Your task to perform on an android device: turn on showing notifications on the lock screen Image 0: 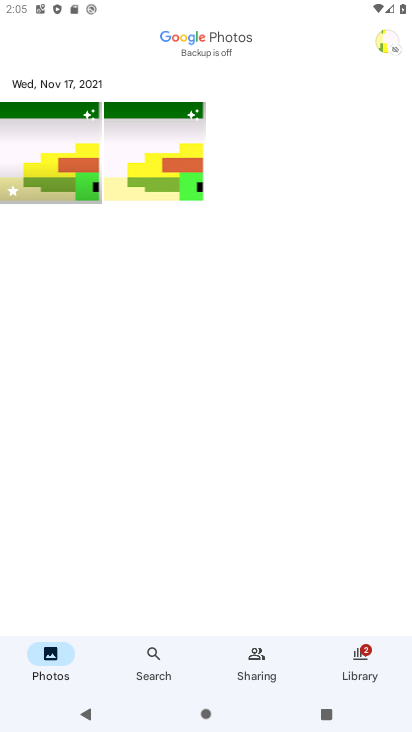
Step 0: press home button
Your task to perform on an android device: turn on showing notifications on the lock screen Image 1: 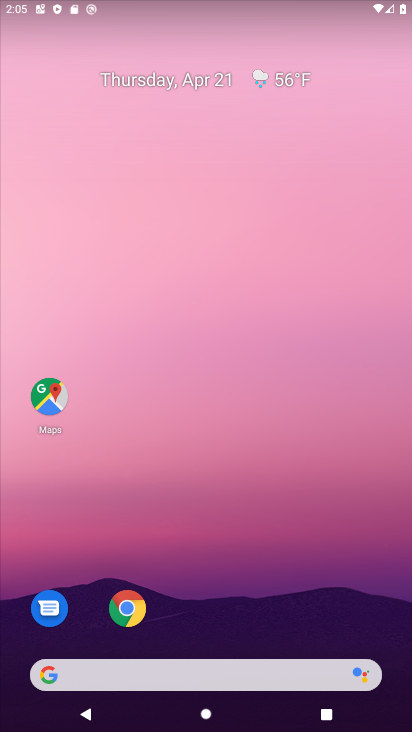
Step 1: drag from (270, 568) to (257, 77)
Your task to perform on an android device: turn on showing notifications on the lock screen Image 2: 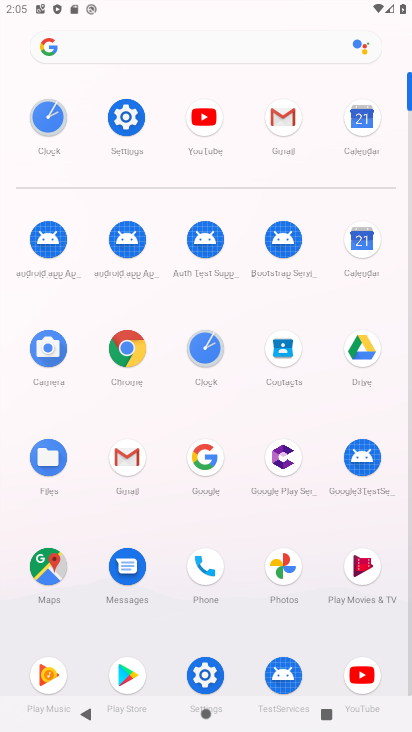
Step 2: click (119, 119)
Your task to perform on an android device: turn on showing notifications on the lock screen Image 3: 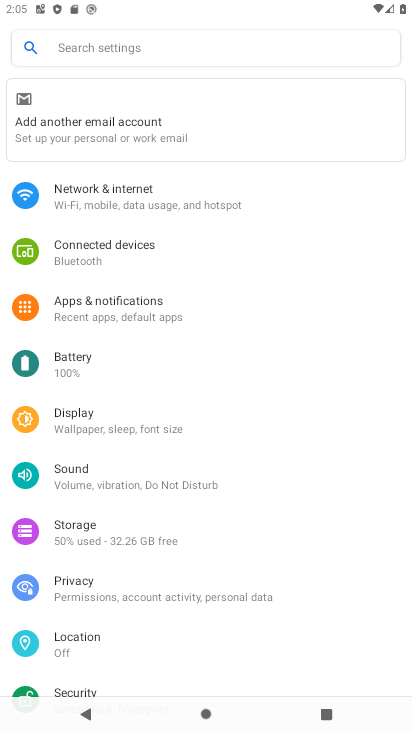
Step 3: click (151, 304)
Your task to perform on an android device: turn on showing notifications on the lock screen Image 4: 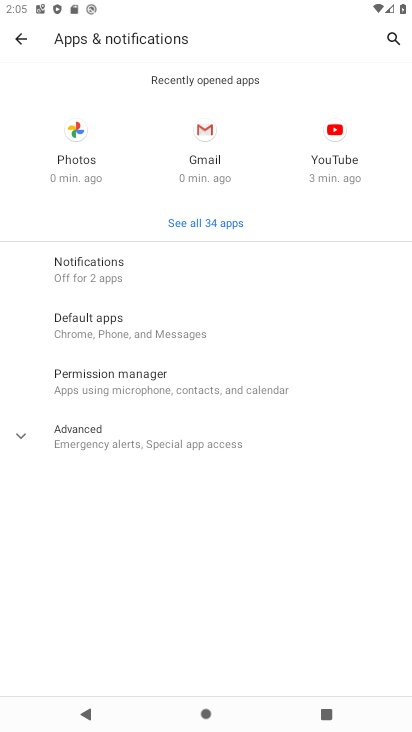
Step 4: click (130, 280)
Your task to perform on an android device: turn on showing notifications on the lock screen Image 5: 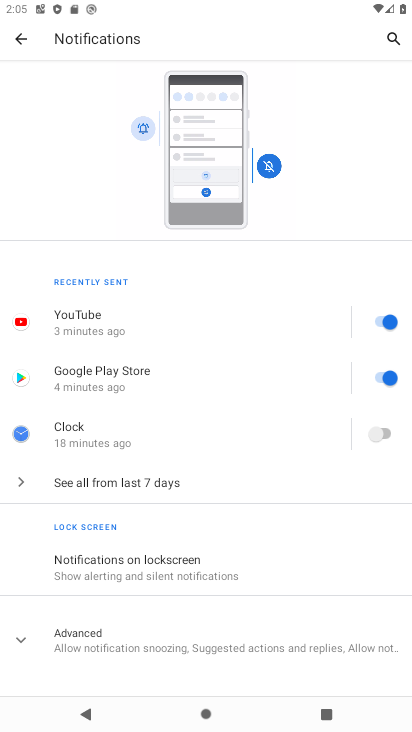
Step 5: click (118, 572)
Your task to perform on an android device: turn on showing notifications on the lock screen Image 6: 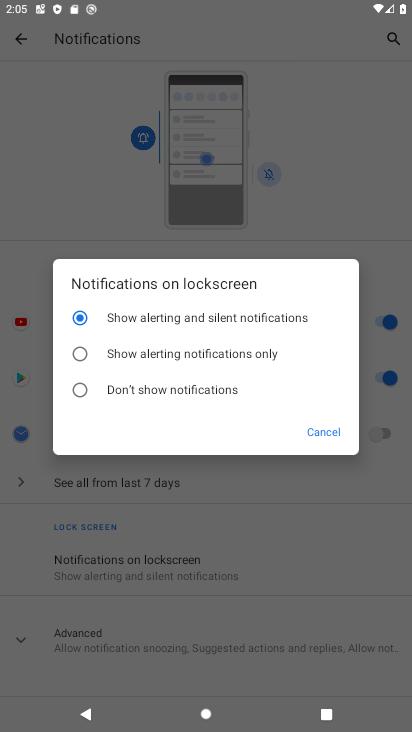
Step 6: click (201, 314)
Your task to perform on an android device: turn on showing notifications on the lock screen Image 7: 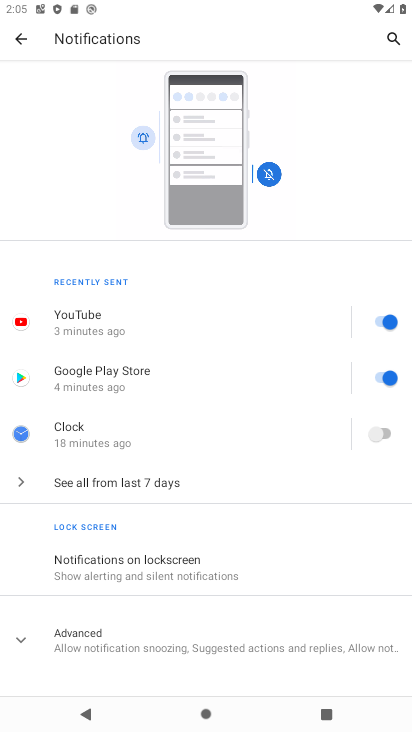
Step 7: task complete